Your task to perform on an android device: turn off wifi Image 0: 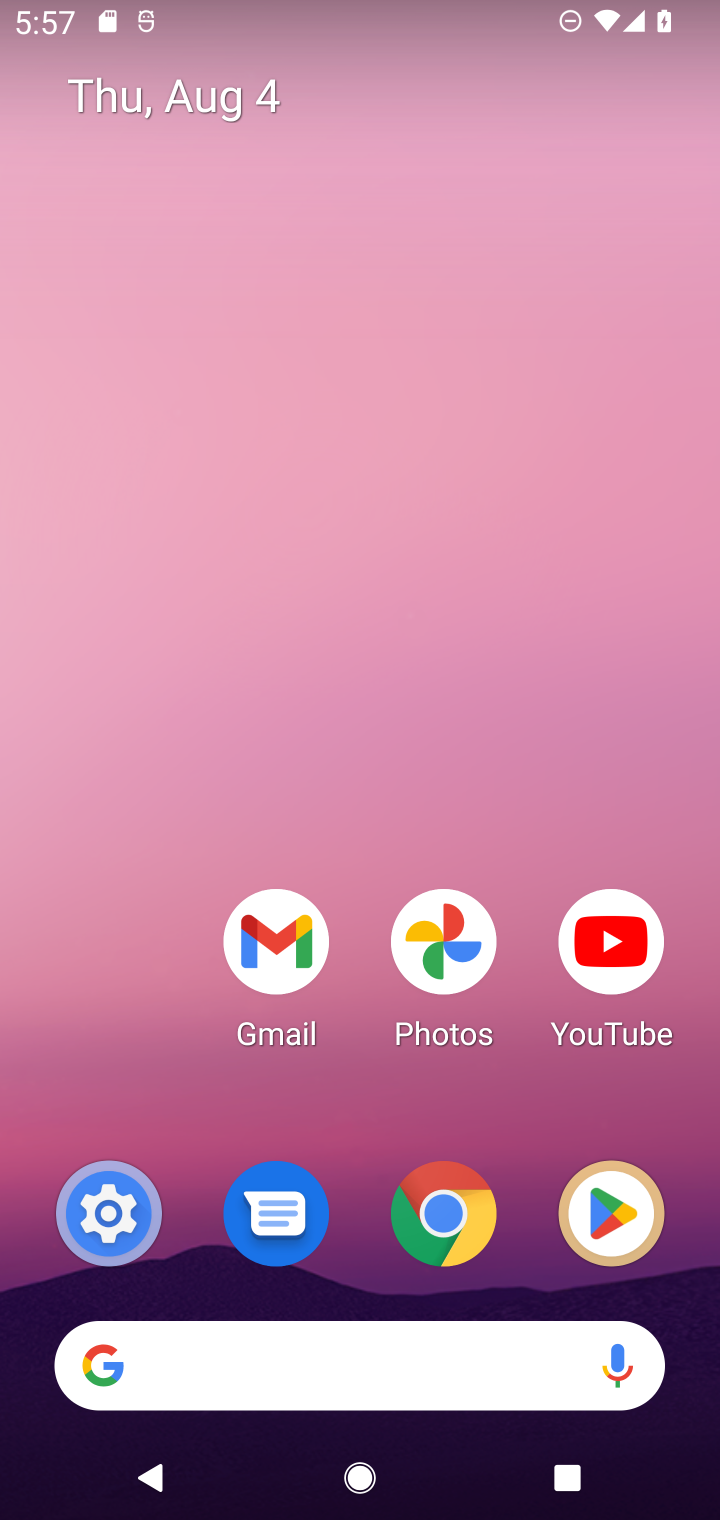
Step 0: drag from (155, 1084) to (221, 367)
Your task to perform on an android device: turn off wifi Image 1: 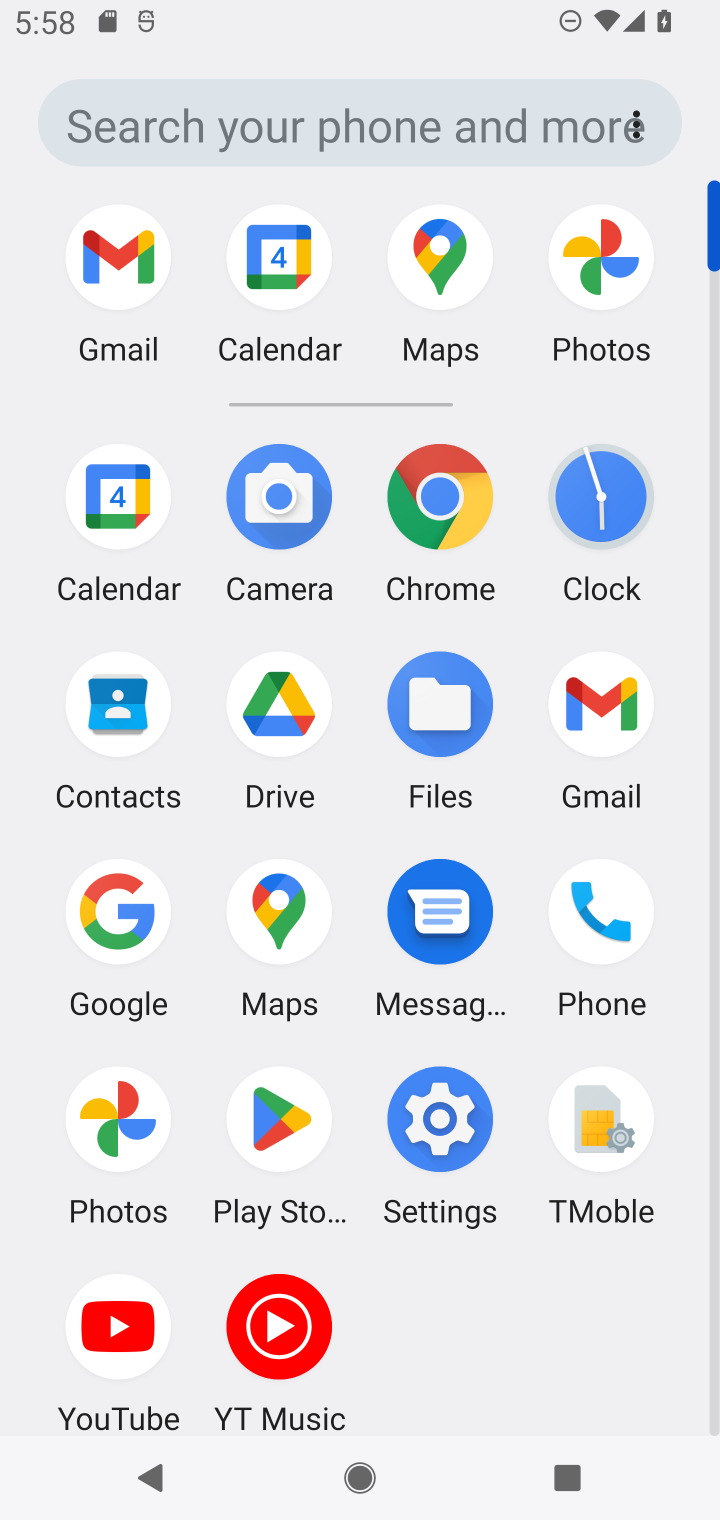
Step 1: click (456, 1139)
Your task to perform on an android device: turn off wifi Image 2: 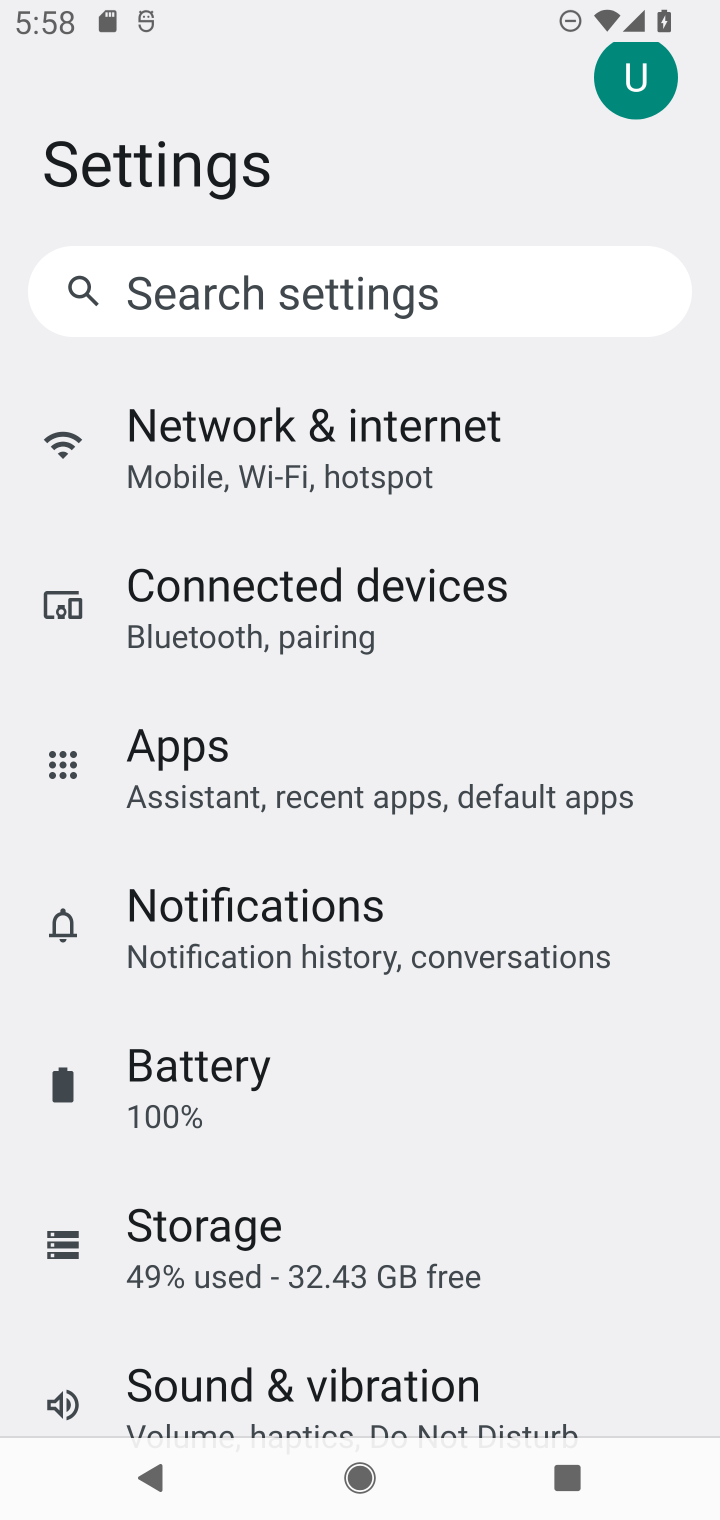
Step 2: drag from (574, 1201) to (589, 916)
Your task to perform on an android device: turn off wifi Image 3: 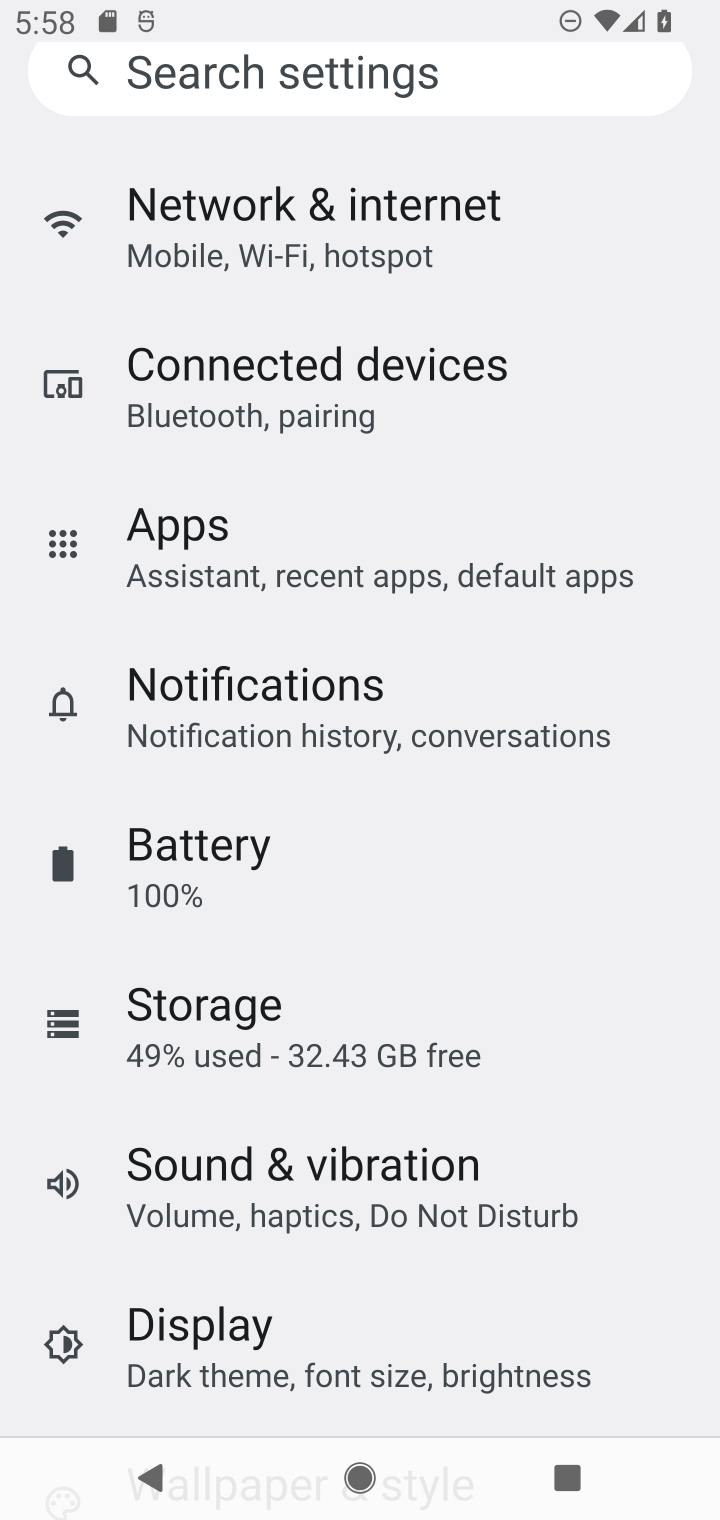
Step 3: drag from (579, 1228) to (578, 807)
Your task to perform on an android device: turn off wifi Image 4: 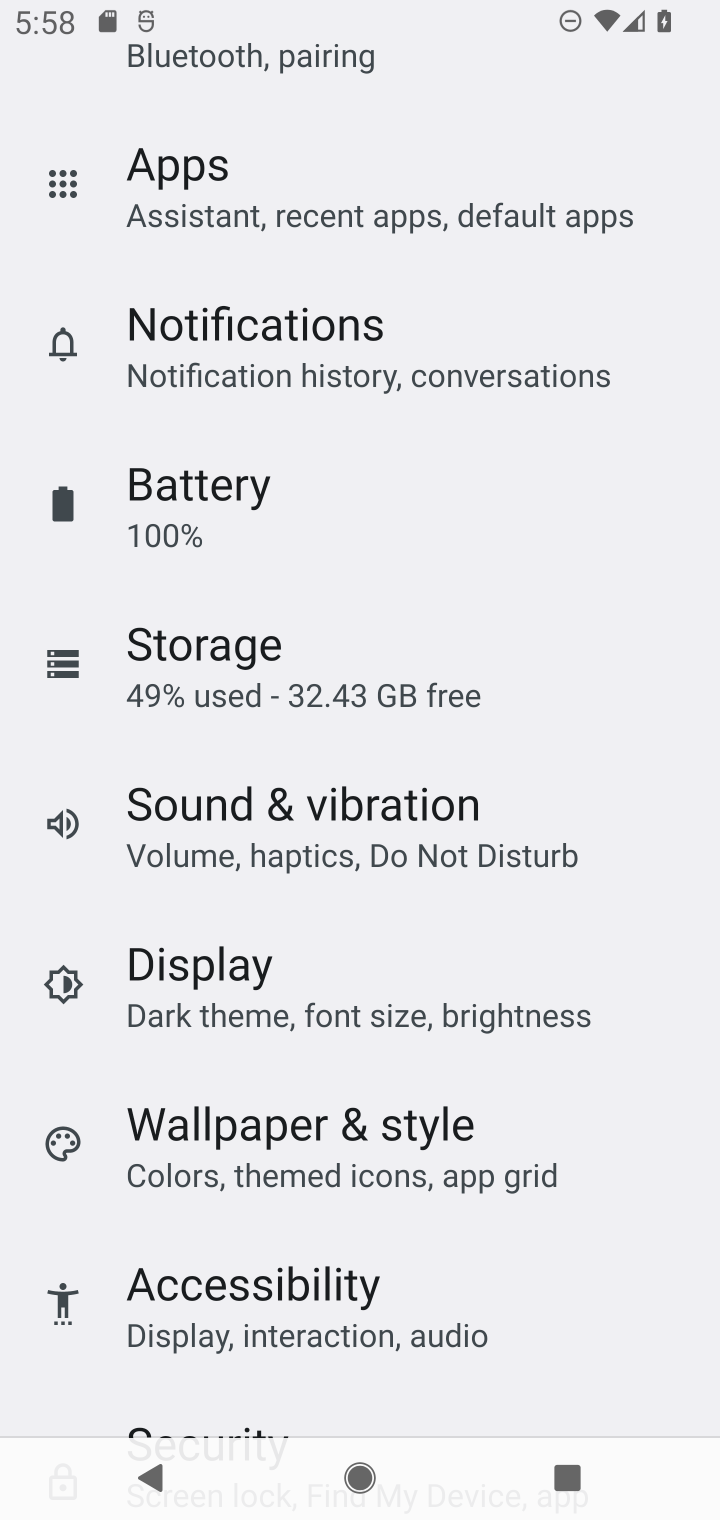
Step 4: drag from (580, 1305) to (623, 901)
Your task to perform on an android device: turn off wifi Image 5: 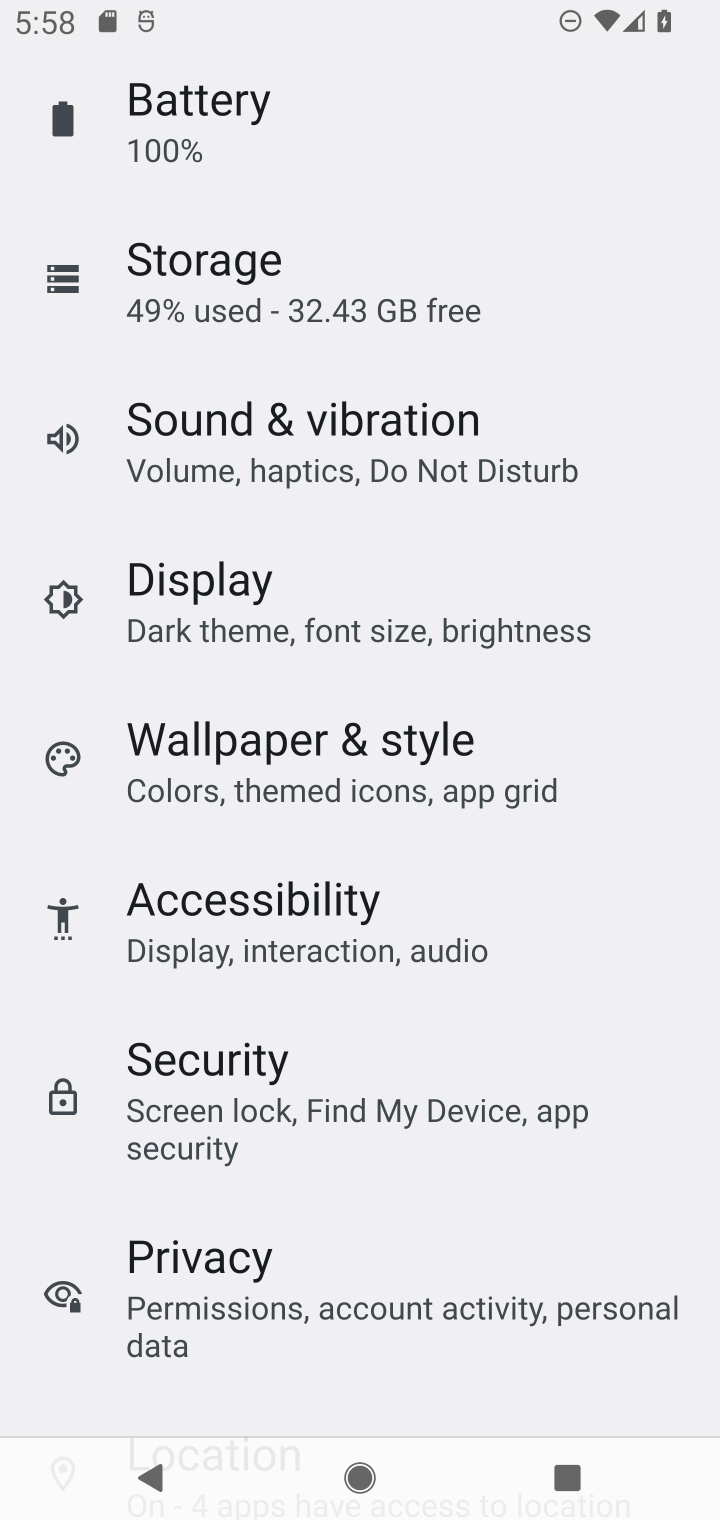
Step 5: drag from (602, 1204) to (613, 660)
Your task to perform on an android device: turn off wifi Image 6: 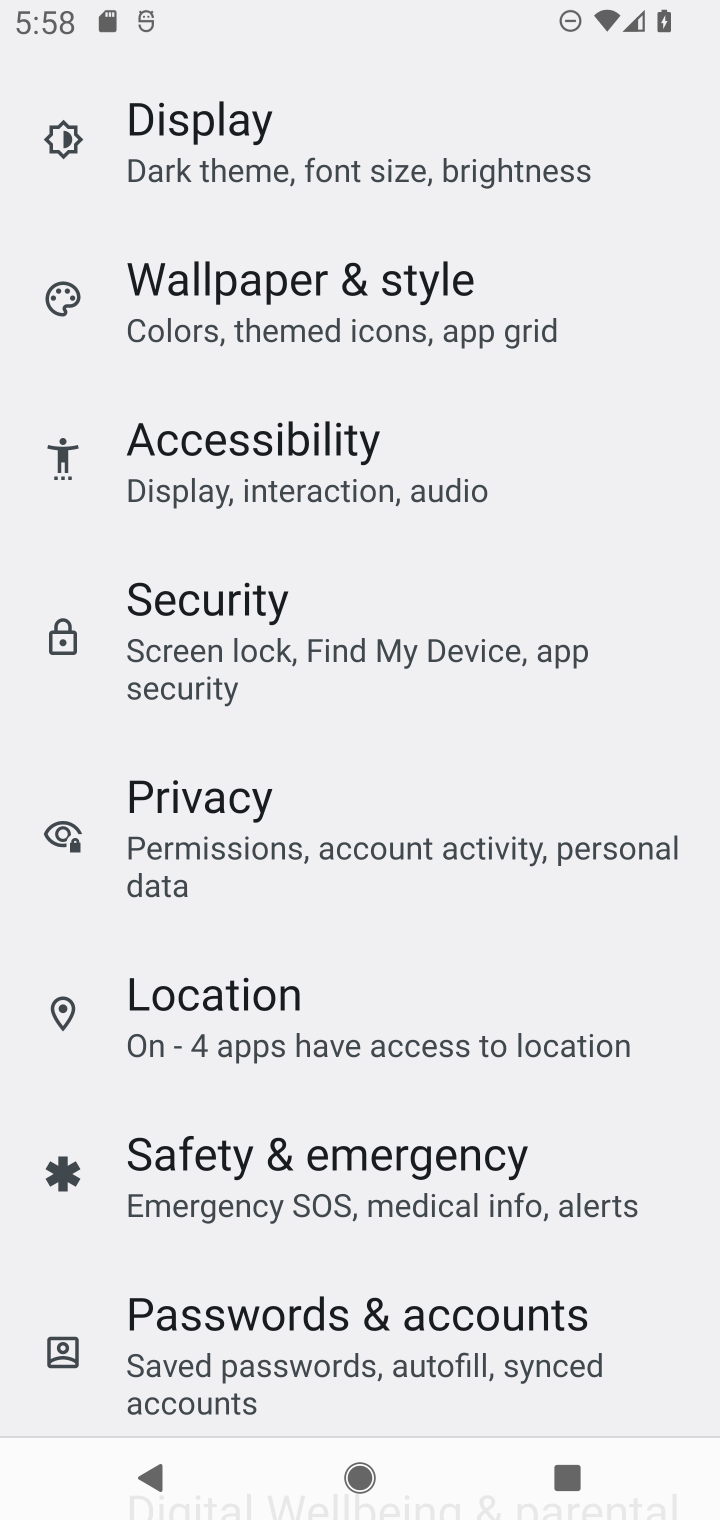
Step 6: drag from (614, 446) to (632, 719)
Your task to perform on an android device: turn off wifi Image 7: 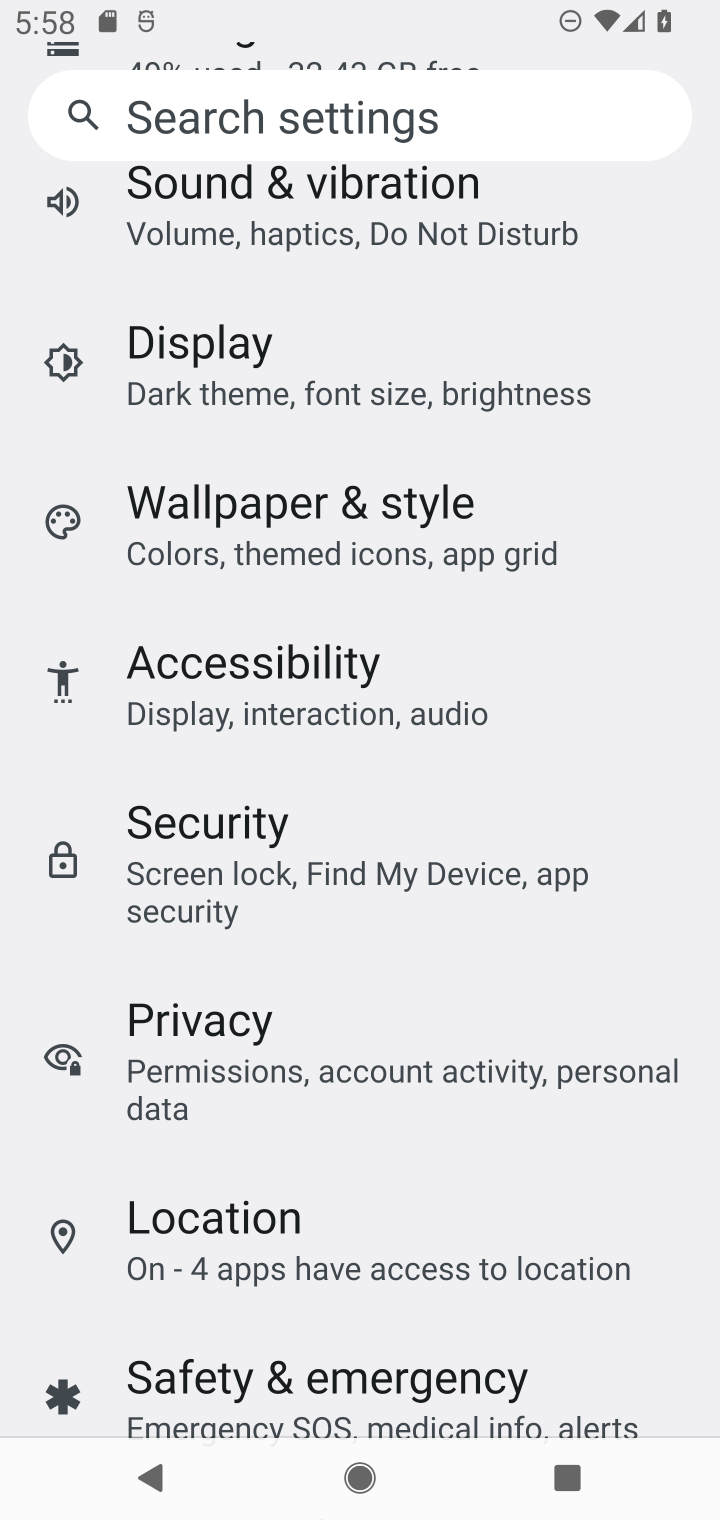
Step 7: drag from (588, 489) to (632, 713)
Your task to perform on an android device: turn off wifi Image 8: 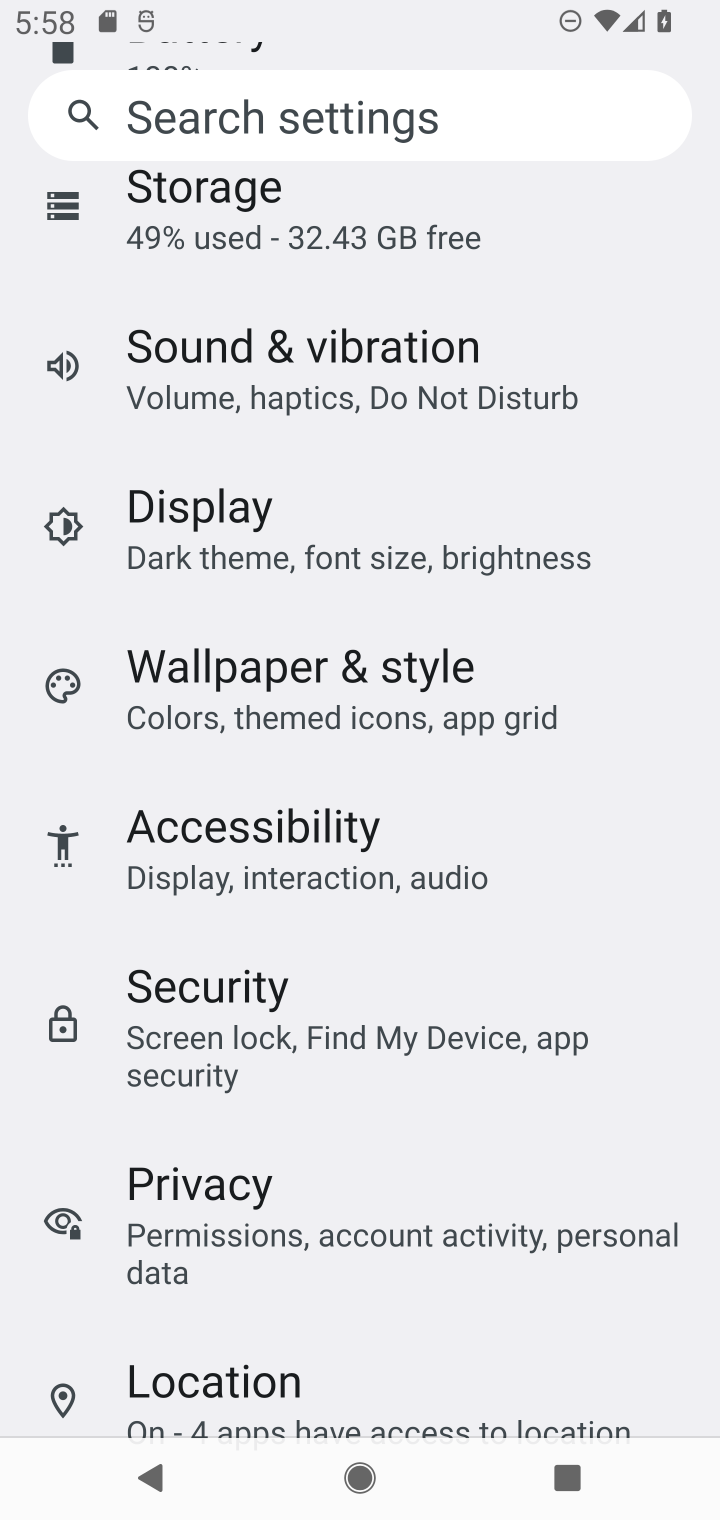
Step 8: drag from (632, 366) to (638, 757)
Your task to perform on an android device: turn off wifi Image 9: 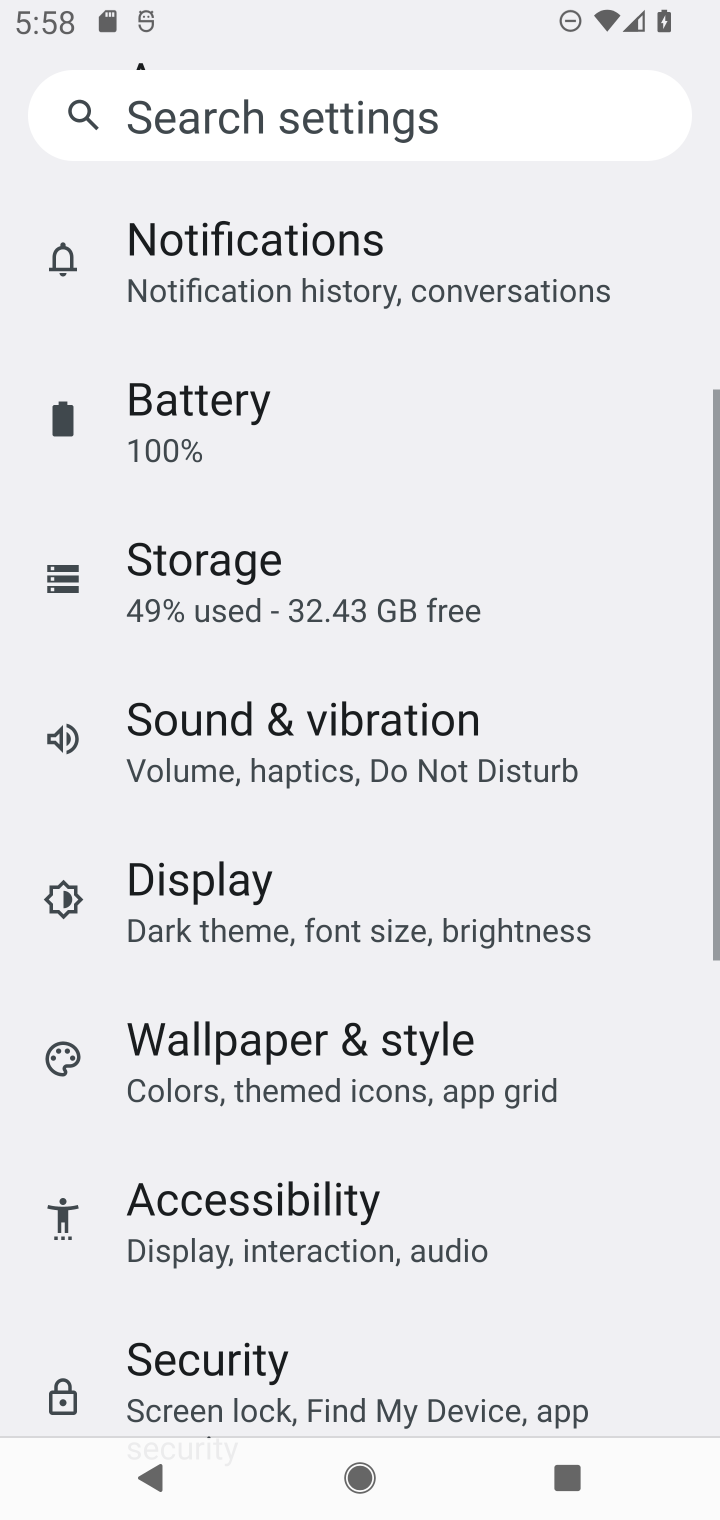
Step 9: drag from (593, 376) to (607, 750)
Your task to perform on an android device: turn off wifi Image 10: 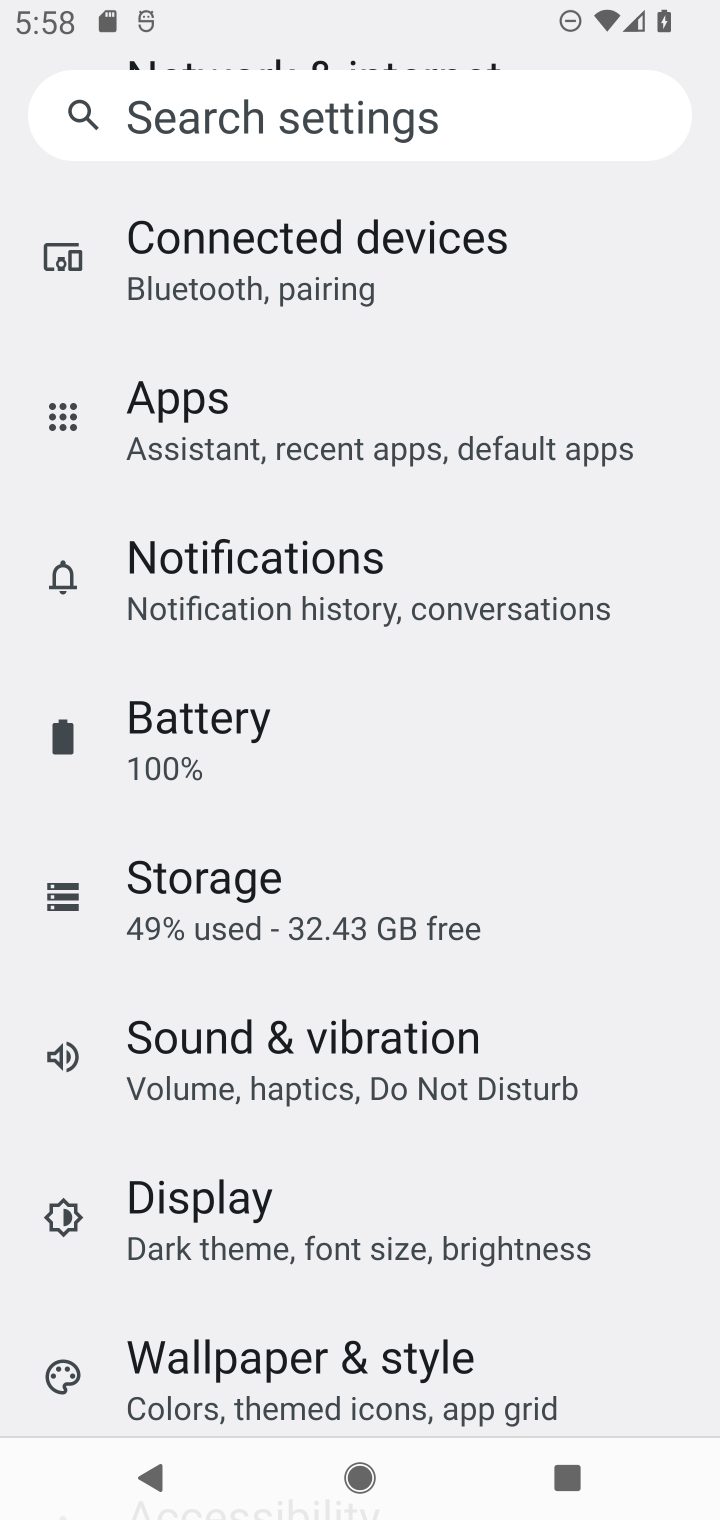
Step 10: drag from (565, 317) to (587, 721)
Your task to perform on an android device: turn off wifi Image 11: 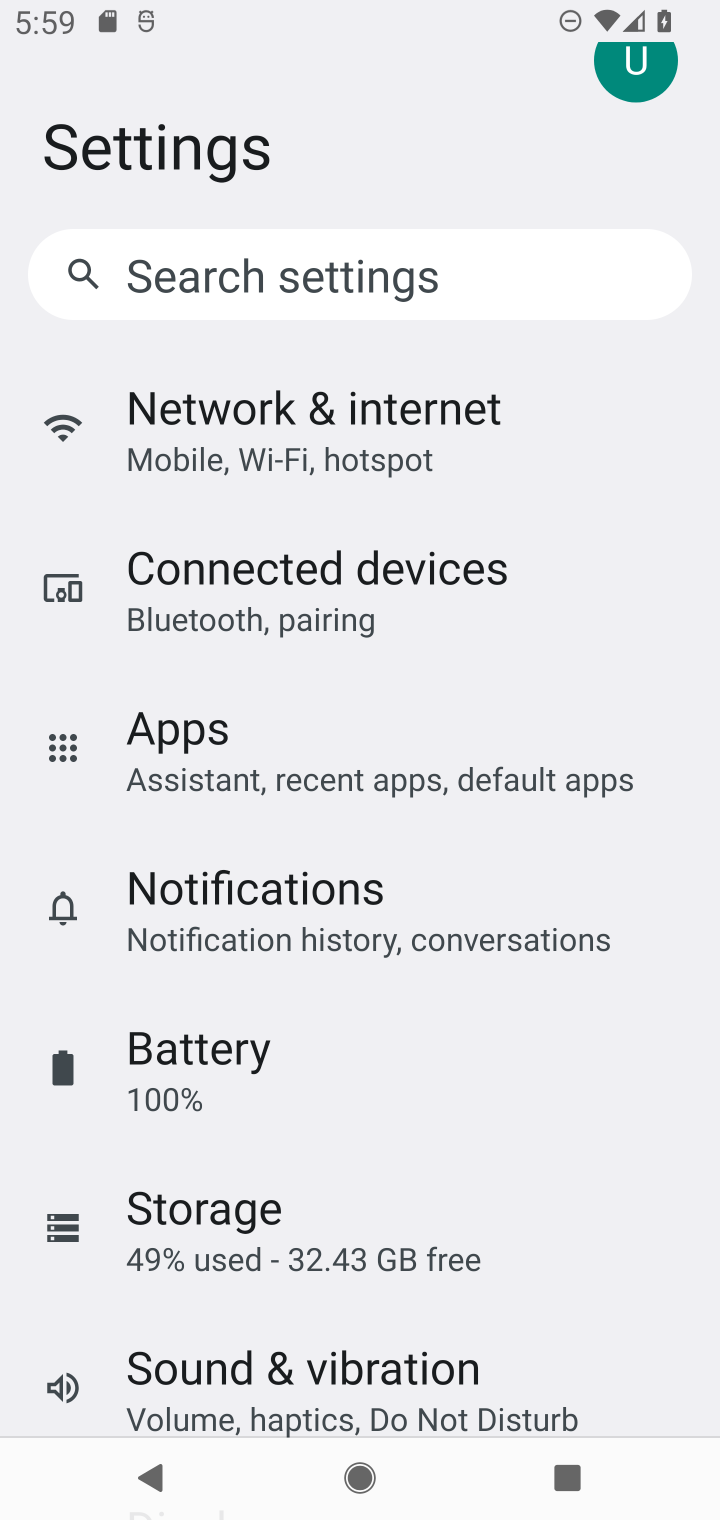
Step 11: click (408, 439)
Your task to perform on an android device: turn off wifi Image 12: 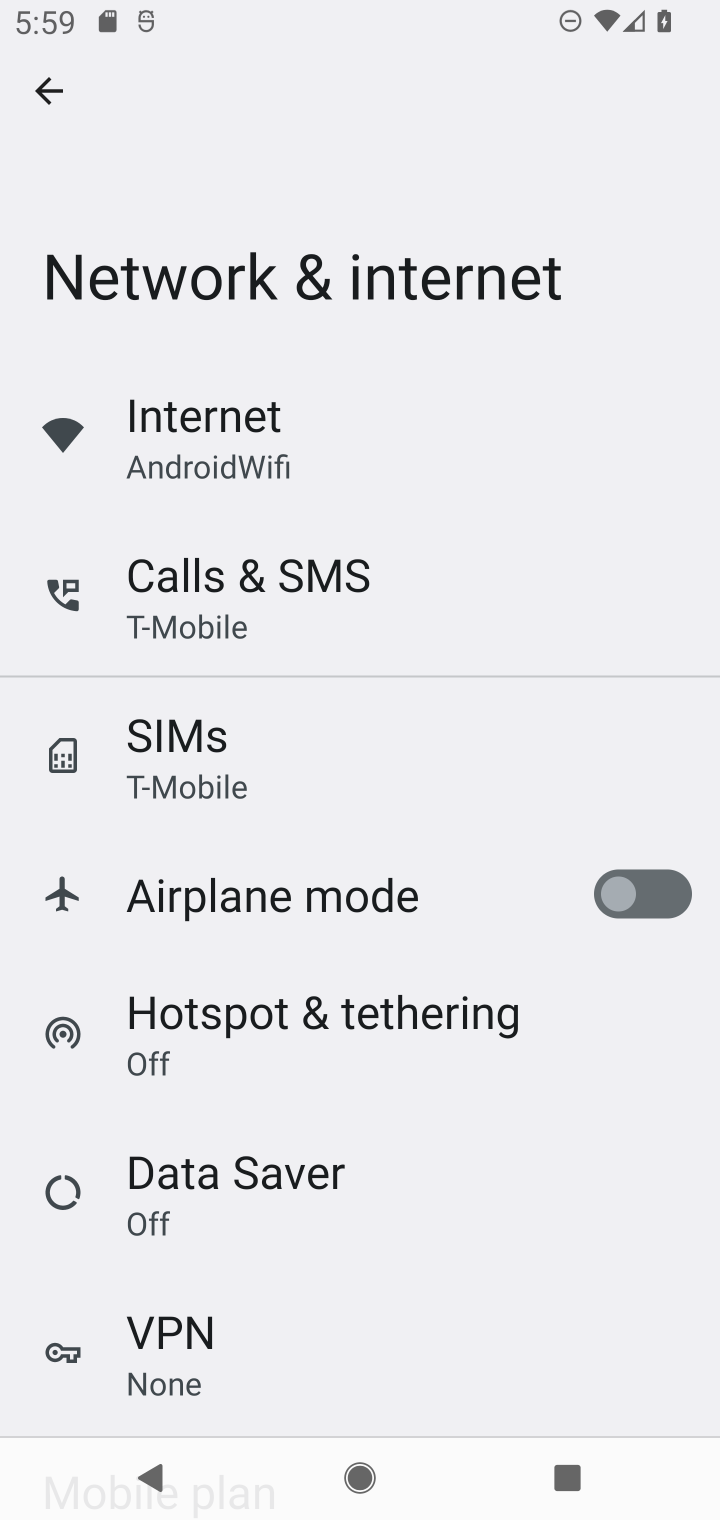
Step 12: click (268, 450)
Your task to perform on an android device: turn off wifi Image 13: 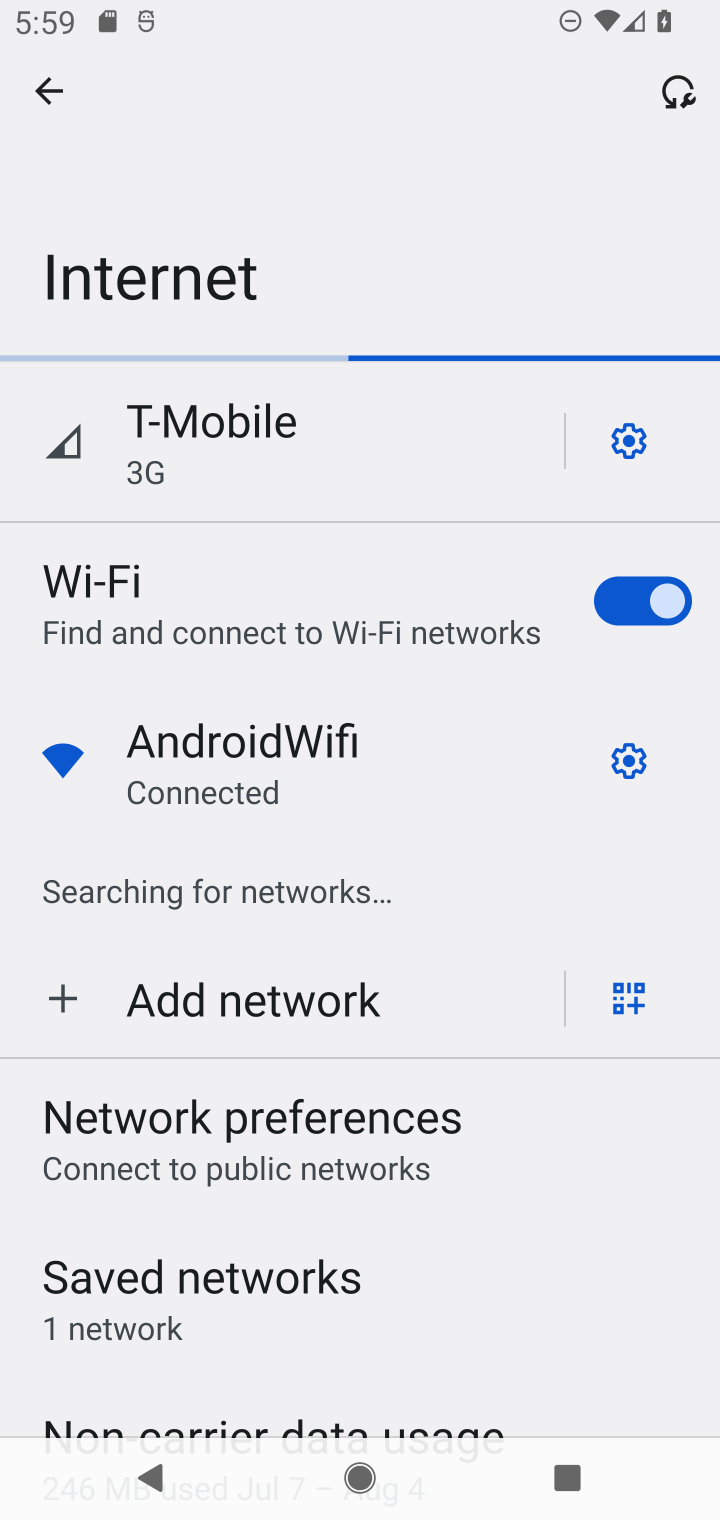
Step 13: click (640, 610)
Your task to perform on an android device: turn off wifi Image 14: 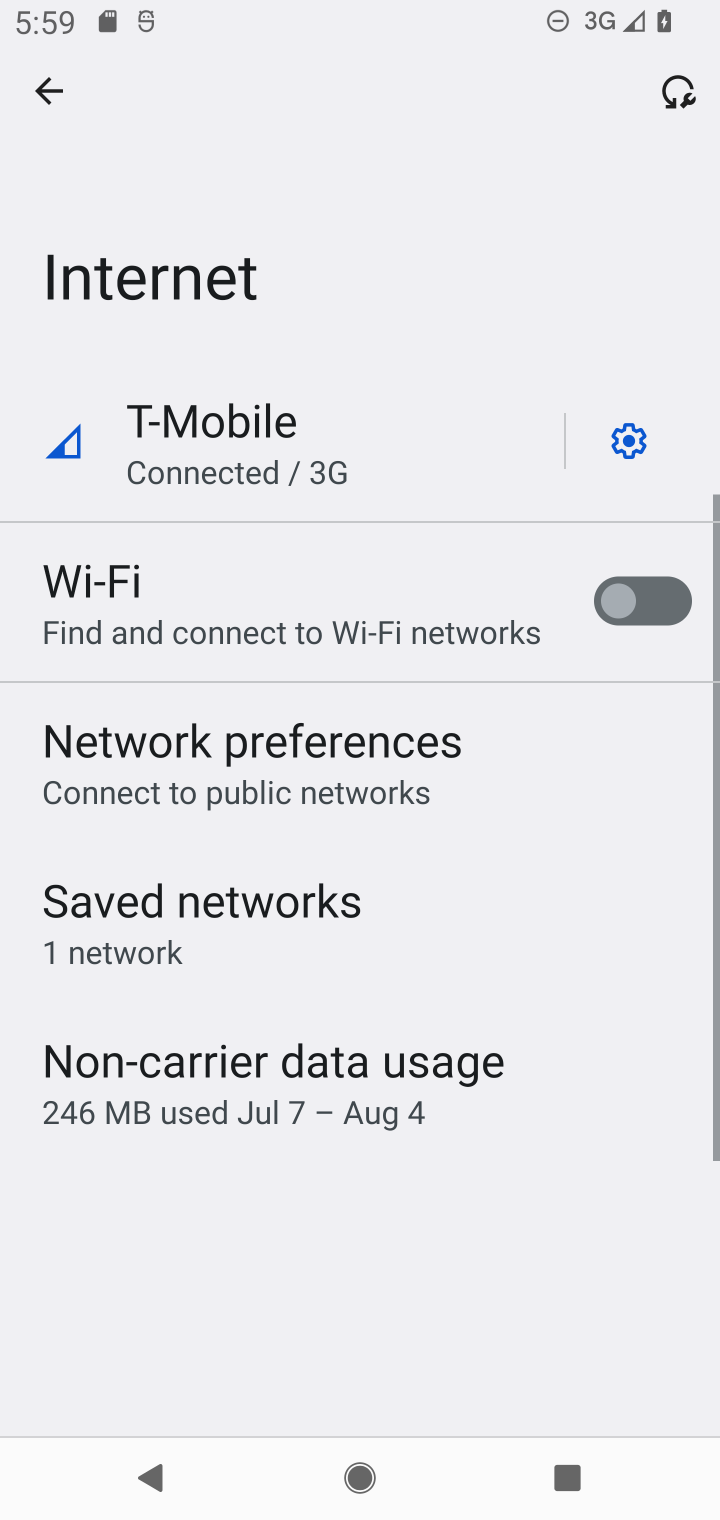
Step 14: task complete